Your task to perform on an android device: Show me recent news Image 0: 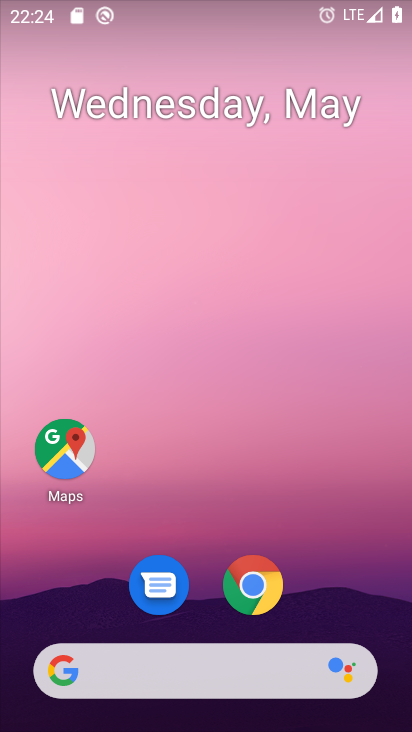
Step 0: click (148, 667)
Your task to perform on an android device: Show me recent news Image 1: 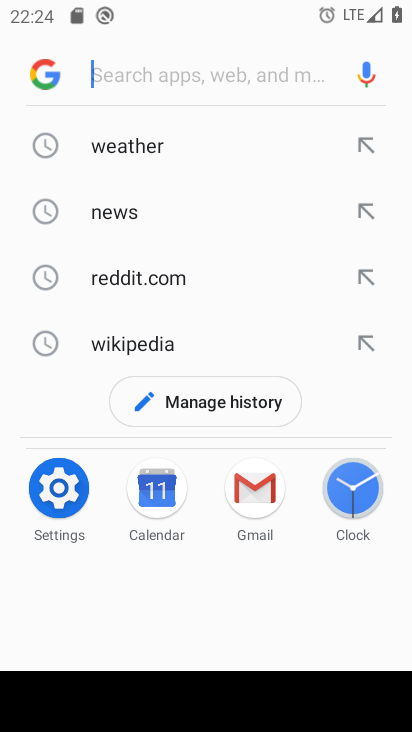
Step 1: click (94, 208)
Your task to perform on an android device: Show me recent news Image 2: 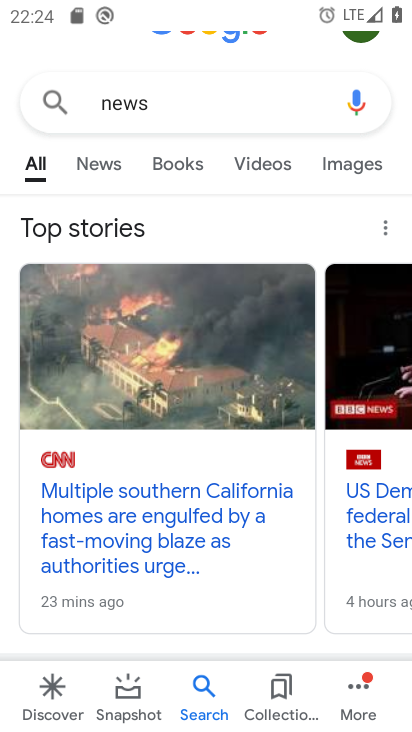
Step 2: click (92, 164)
Your task to perform on an android device: Show me recent news Image 3: 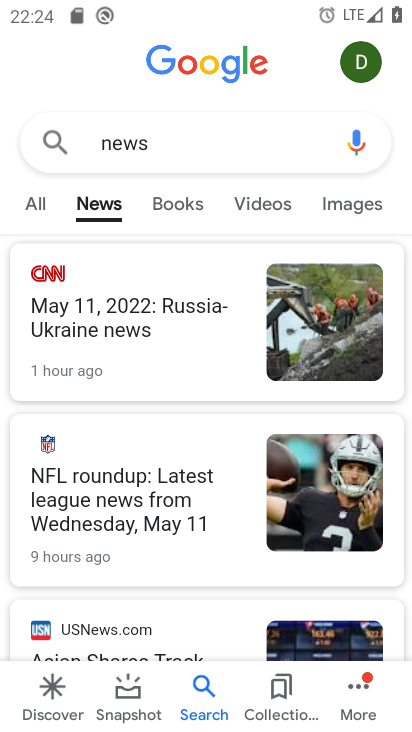
Step 3: task complete